Your task to perform on an android device: see sites visited before in the chrome app Image 0: 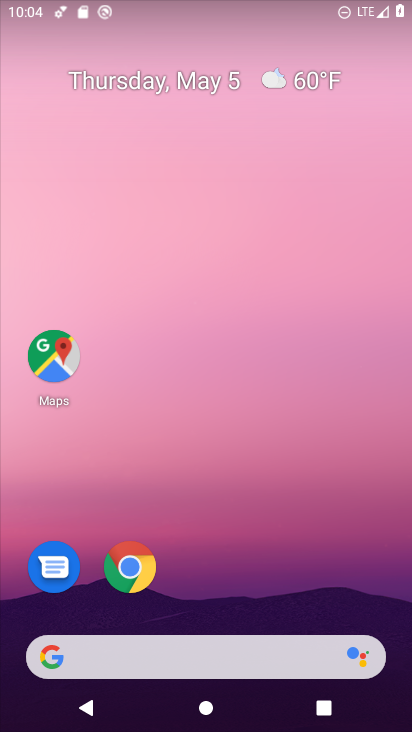
Step 0: click (132, 567)
Your task to perform on an android device: see sites visited before in the chrome app Image 1: 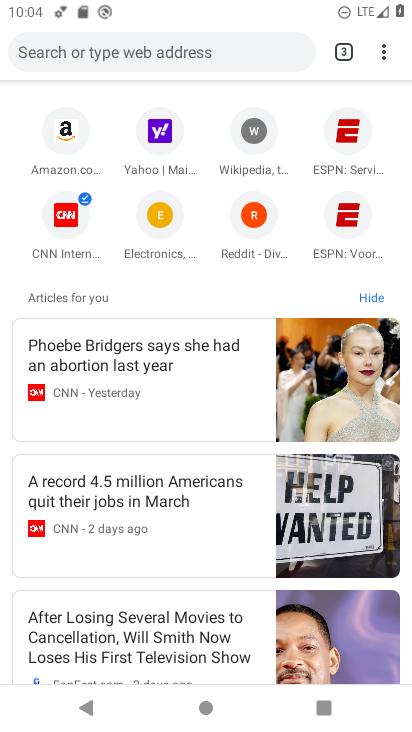
Step 1: task complete